Your task to perform on an android device: change alarm snooze length Image 0: 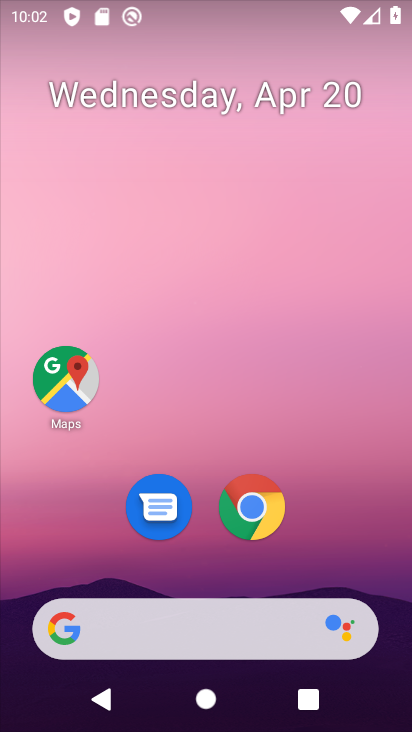
Step 0: drag from (205, 510) to (295, 60)
Your task to perform on an android device: change alarm snooze length Image 1: 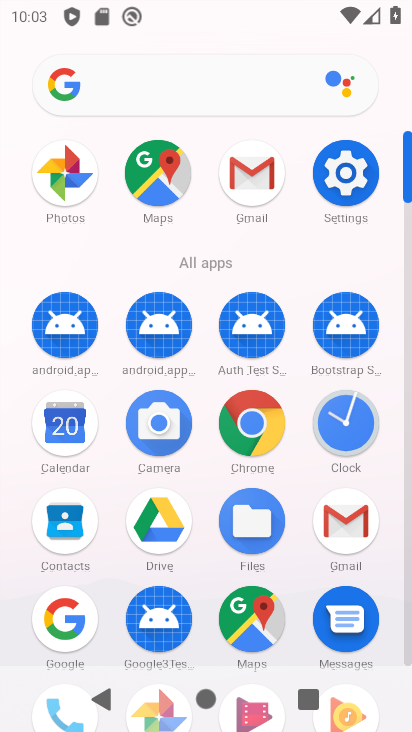
Step 1: click (354, 434)
Your task to perform on an android device: change alarm snooze length Image 2: 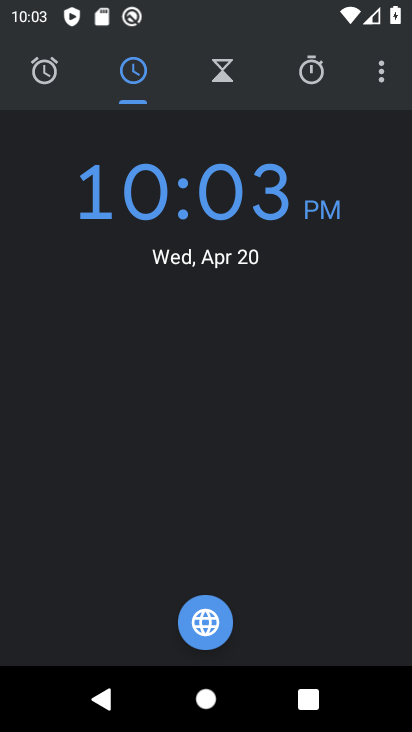
Step 2: click (46, 72)
Your task to perform on an android device: change alarm snooze length Image 3: 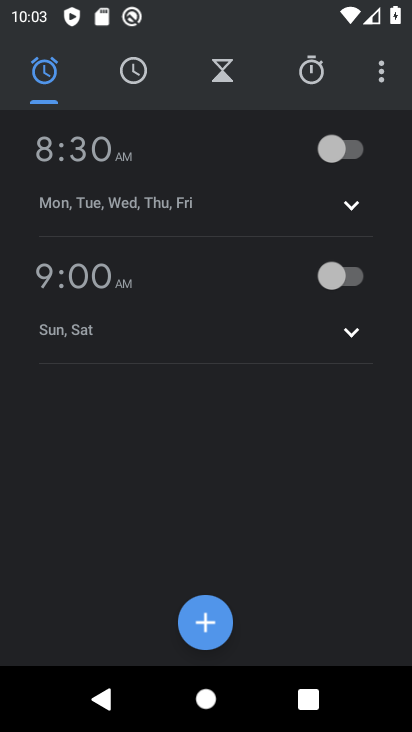
Step 3: click (382, 75)
Your task to perform on an android device: change alarm snooze length Image 4: 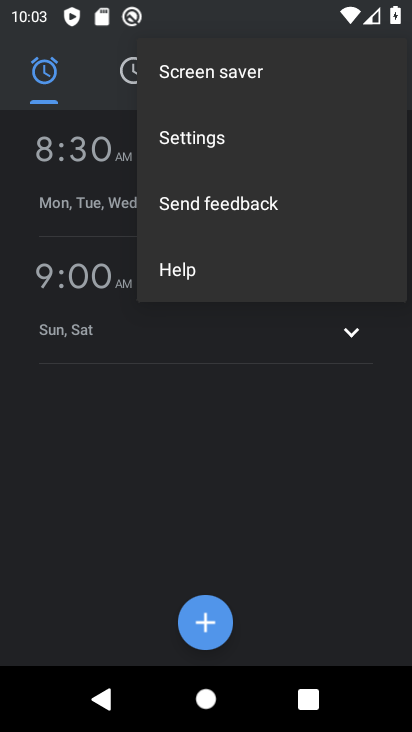
Step 4: click (228, 150)
Your task to perform on an android device: change alarm snooze length Image 5: 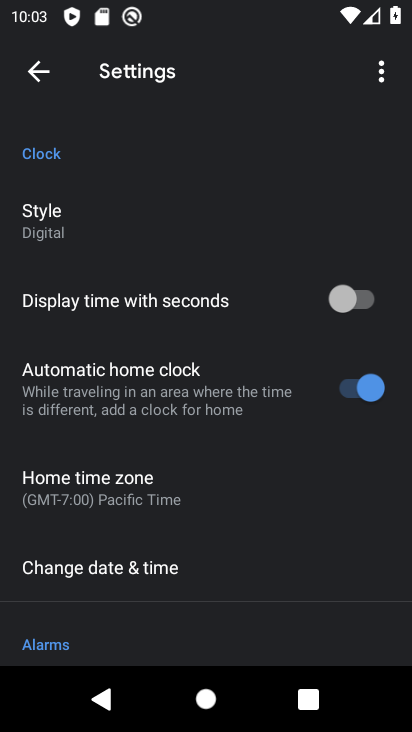
Step 5: drag from (162, 584) to (246, 216)
Your task to perform on an android device: change alarm snooze length Image 6: 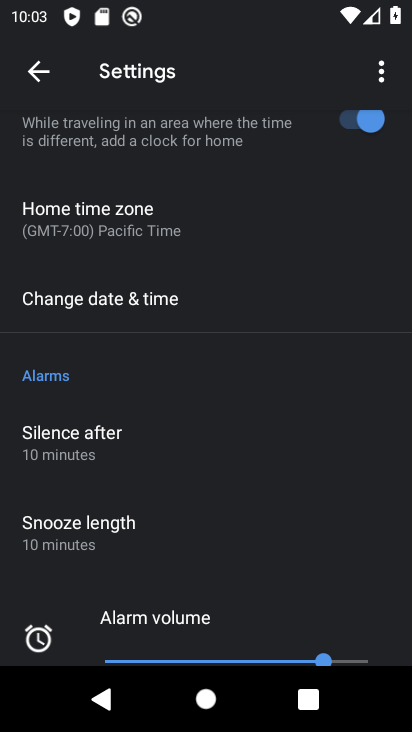
Step 6: click (95, 535)
Your task to perform on an android device: change alarm snooze length Image 7: 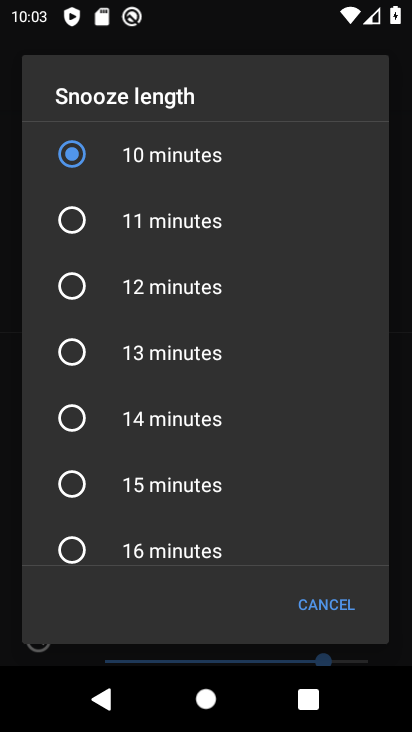
Step 7: click (70, 292)
Your task to perform on an android device: change alarm snooze length Image 8: 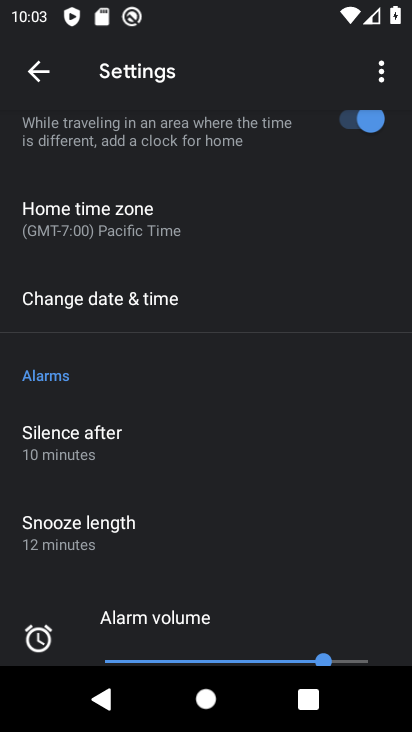
Step 8: task complete